Your task to perform on an android device: open app "Mercado Libre" (install if not already installed) Image 0: 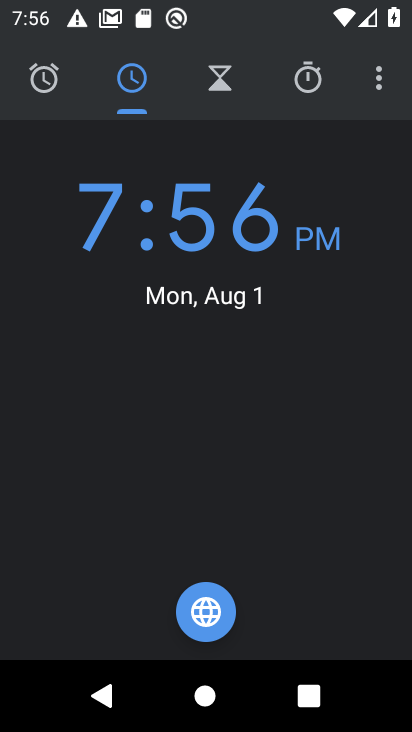
Step 0: press home button
Your task to perform on an android device: open app "Mercado Libre" (install if not already installed) Image 1: 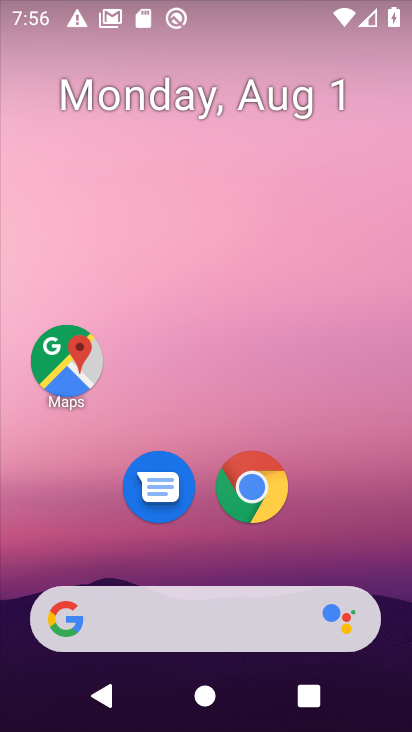
Step 1: drag from (367, 561) to (353, 89)
Your task to perform on an android device: open app "Mercado Libre" (install if not already installed) Image 2: 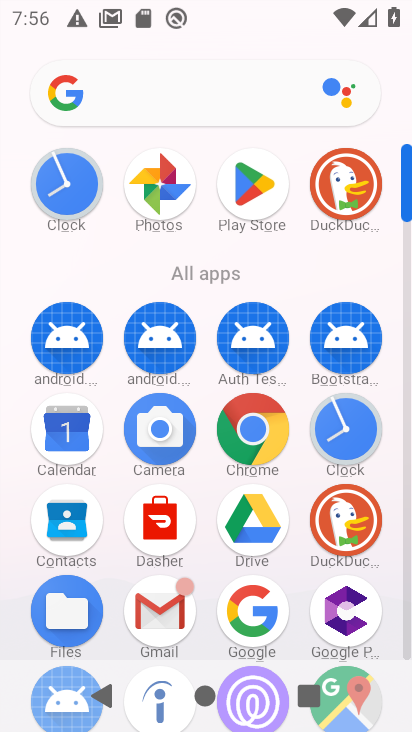
Step 2: click (260, 193)
Your task to perform on an android device: open app "Mercado Libre" (install if not already installed) Image 3: 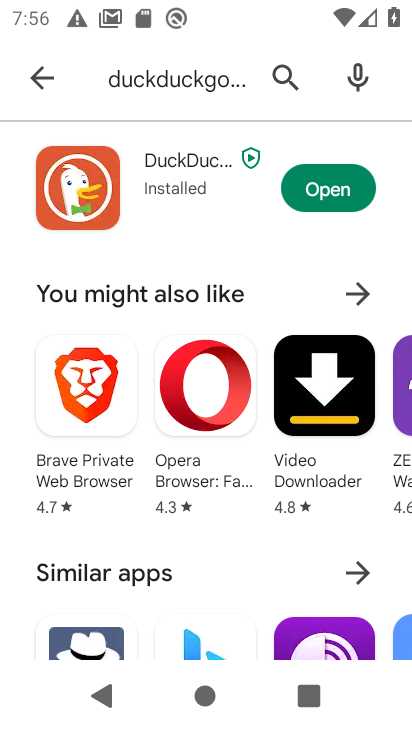
Step 3: click (283, 78)
Your task to perform on an android device: open app "Mercado Libre" (install if not already installed) Image 4: 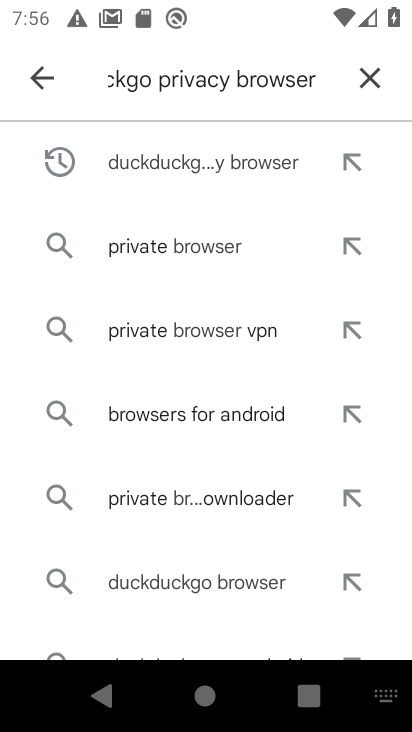
Step 4: click (377, 80)
Your task to perform on an android device: open app "Mercado Libre" (install if not already installed) Image 5: 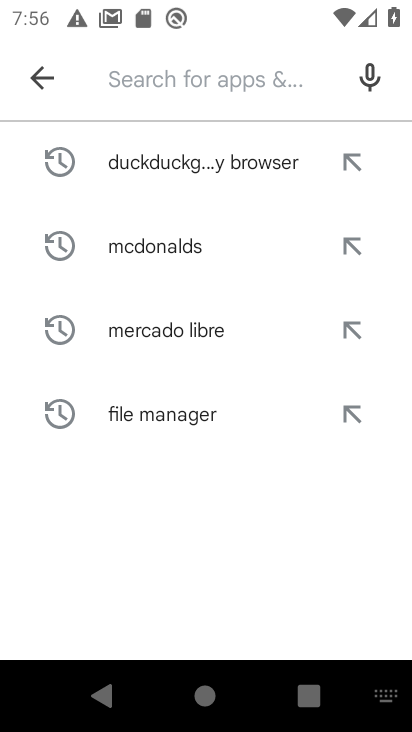
Step 5: type "mercado libre"
Your task to perform on an android device: open app "Mercado Libre" (install if not already installed) Image 6: 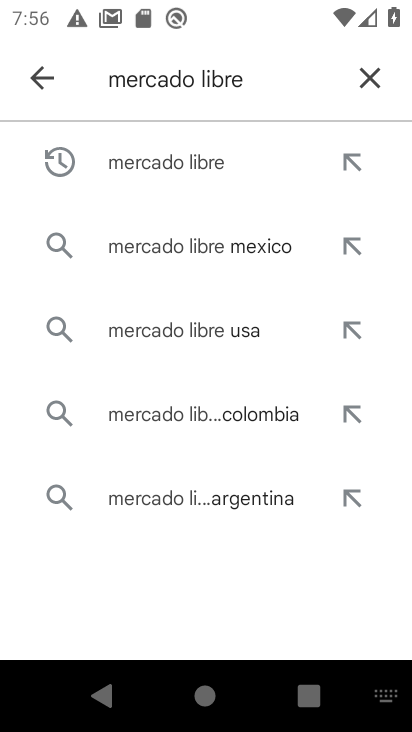
Step 6: click (223, 154)
Your task to perform on an android device: open app "Mercado Libre" (install if not already installed) Image 7: 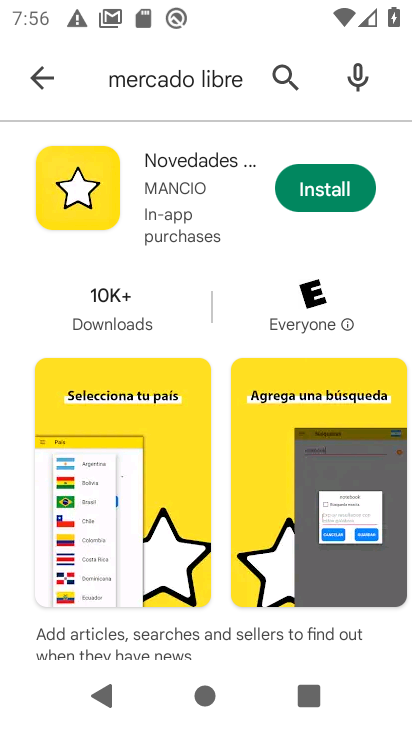
Step 7: task complete